Your task to perform on an android device: set the timer Image 0: 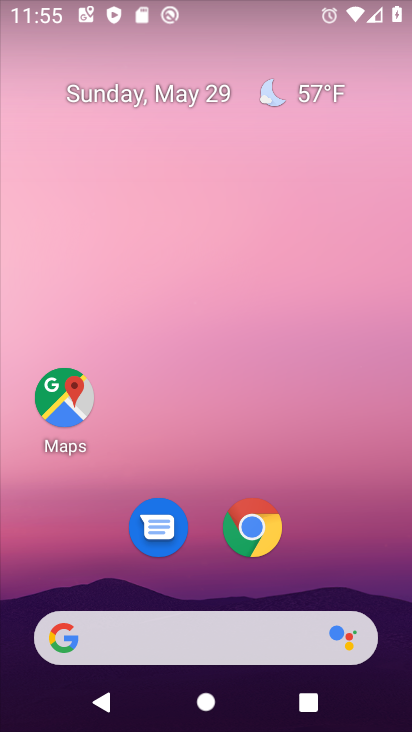
Step 0: task complete